Your task to perform on an android device: Open the calendar app, open the side menu, and click the "Day" option Image 0: 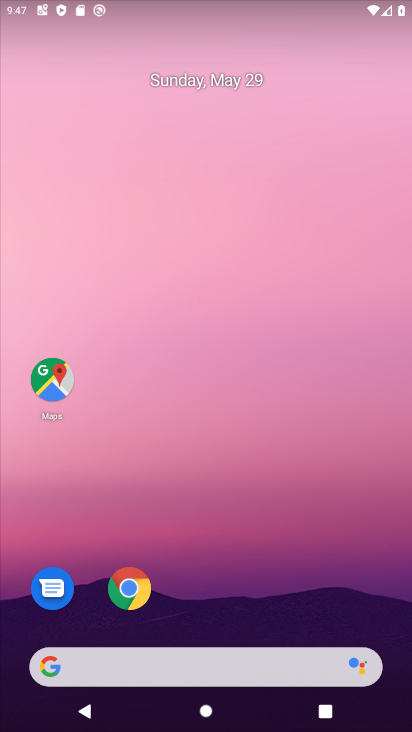
Step 0: drag from (237, 591) to (206, 73)
Your task to perform on an android device: Open the calendar app, open the side menu, and click the "Day" option Image 1: 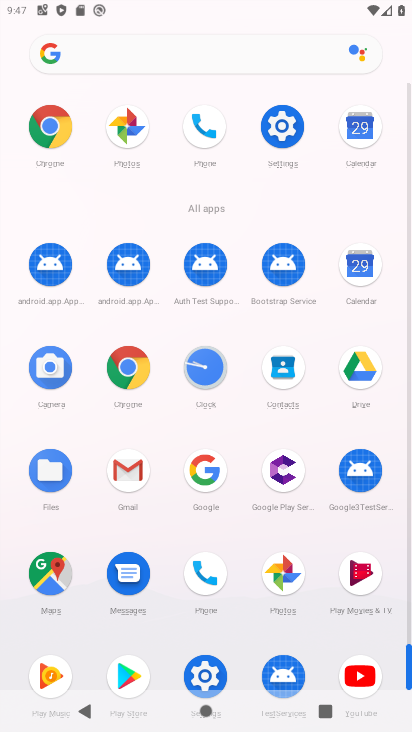
Step 1: click (367, 280)
Your task to perform on an android device: Open the calendar app, open the side menu, and click the "Day" option Image 2: 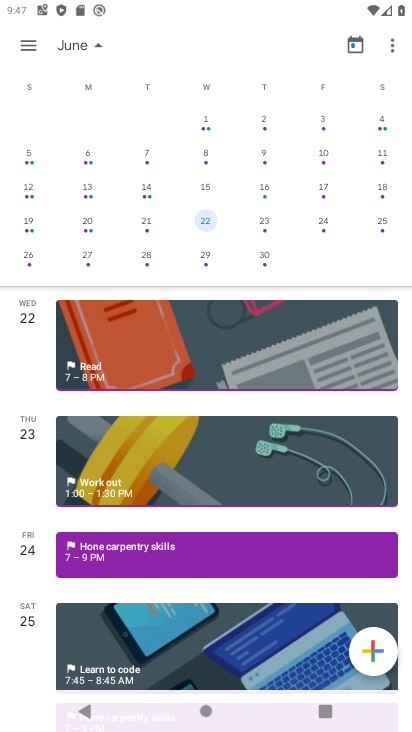
Step 2: click (28, 49)
Your task to perform on an android device: Open the calendar app, open the side menu, and click the "Day" option Image 3: 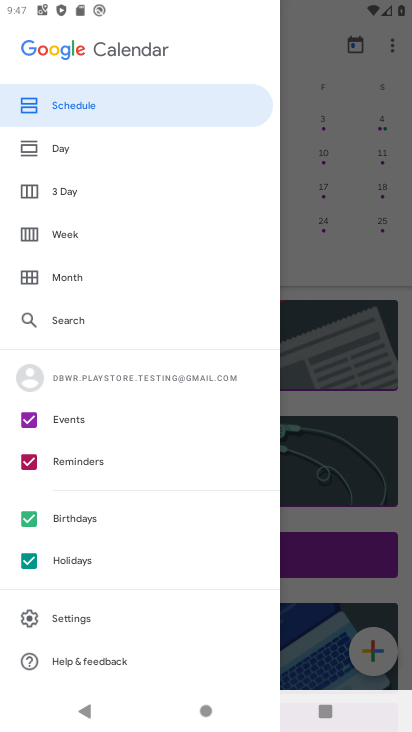
Step 3: click (73, 157)
Your task to perform on an android device: Open the calendar app, open the side menu, and click the "Day" option Image 4: 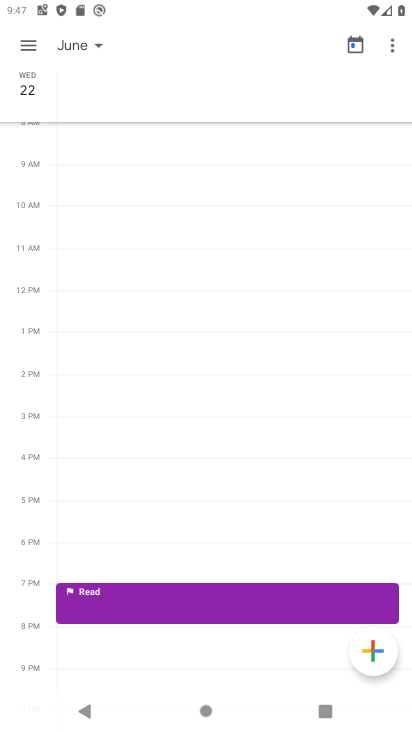
Step 4: task complete